Your task to perform on an android device: What's the weather? Image 0: 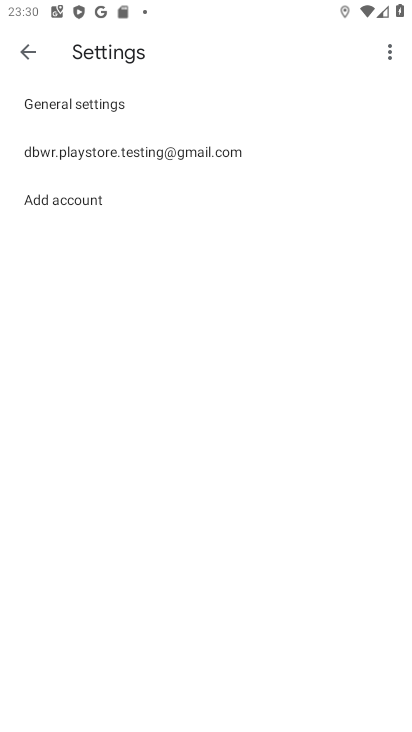
Step 0: press home button
Your task to perform on an android device: What's the weather? Image 1: 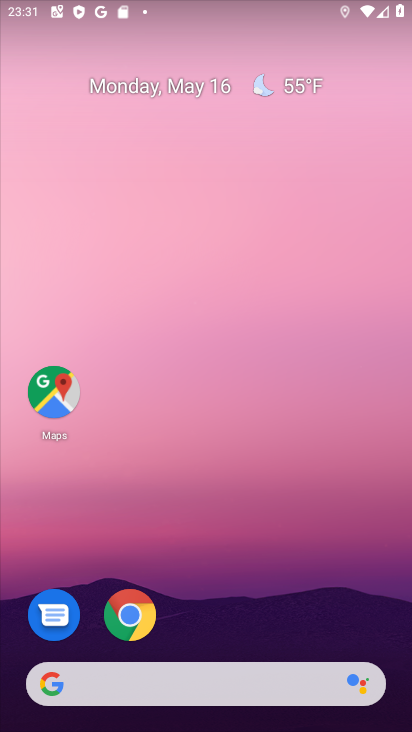
Step 1: click (197, 680)
Your task to perform on an android device: What's the weather? Image 2: 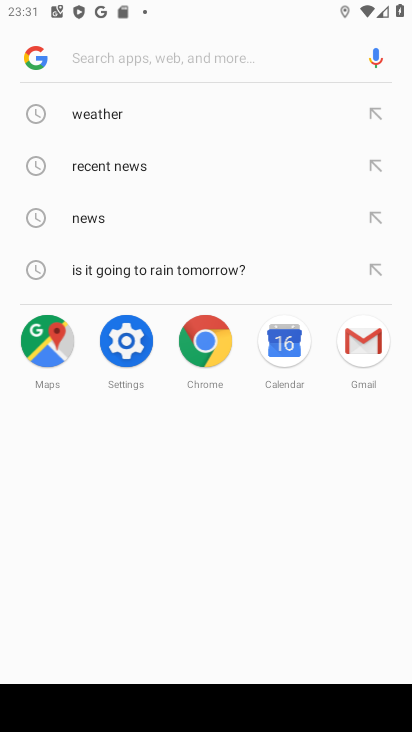
Step 2: click (107, 117)
Your task to perform on an android device: What's the weather? Image 3: 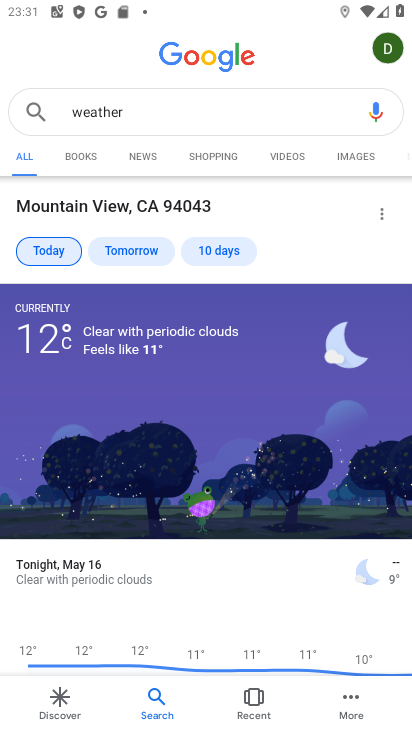
Step 3: task complete